Your task to perform on an android device: toggle notifications settings in the gmail app Image 0: 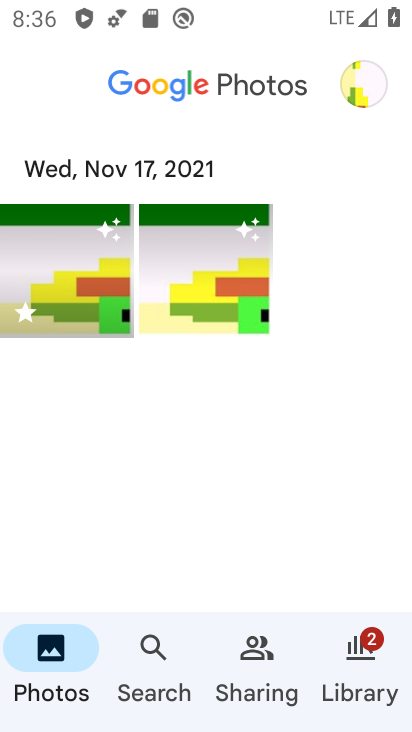
Step 0: press home button
Your task to perform on an android device: toggle notifications settings in the gmail app Image 1: 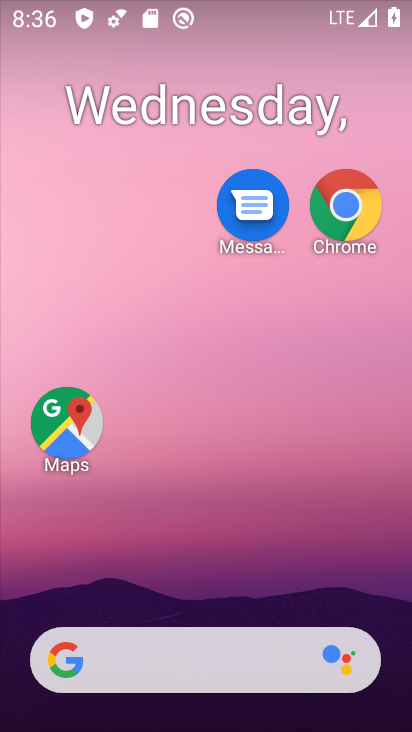
Step 1: drag from (169, 589) to (241, 132)
Your task to perform on an android device: toggle notifications settings in the gmail app Image 2: 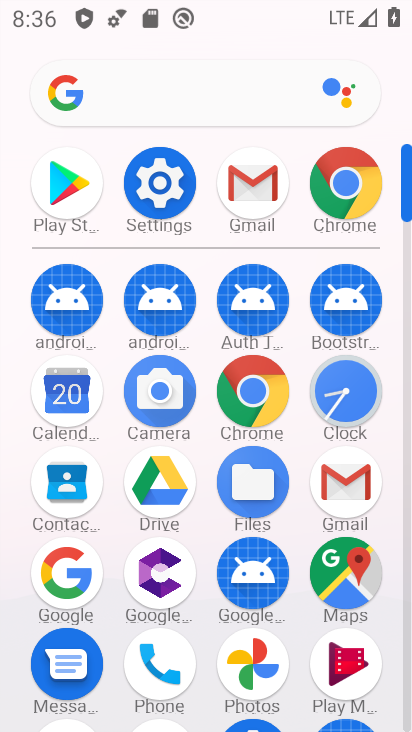
Step 2: click (347, 466)
Your task to perform on an android device: toggle notifications settings in the gmail app Image 3: 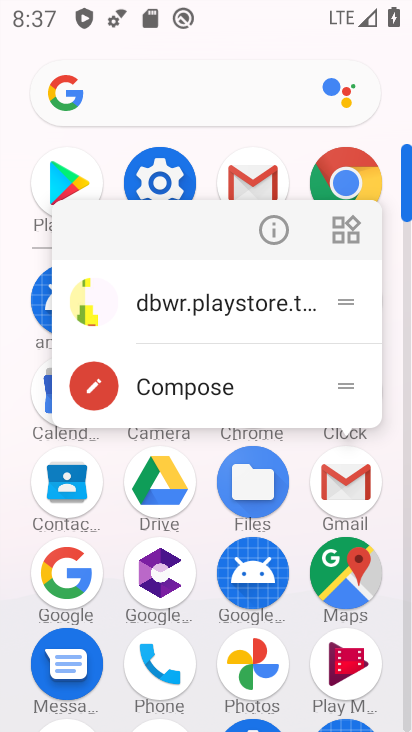
Step 3: click (267, 239)
Your task to perform on an android device: toggle notifications settings in the gmail app Image 4: 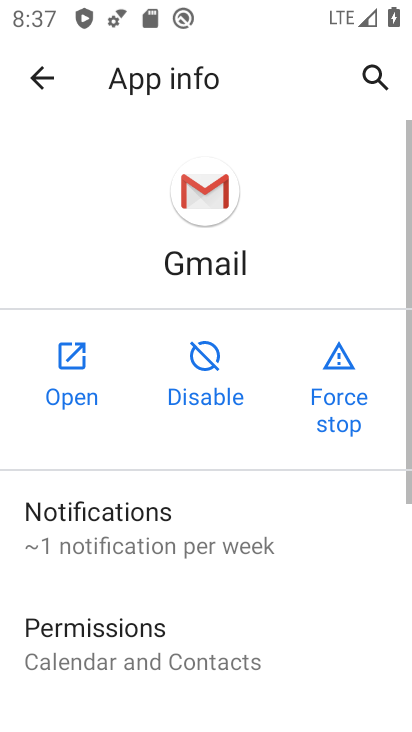
Step 4: click (72, 350)
Your task to perform on an android device: toggle notifications settings in the gmail app Image 5: 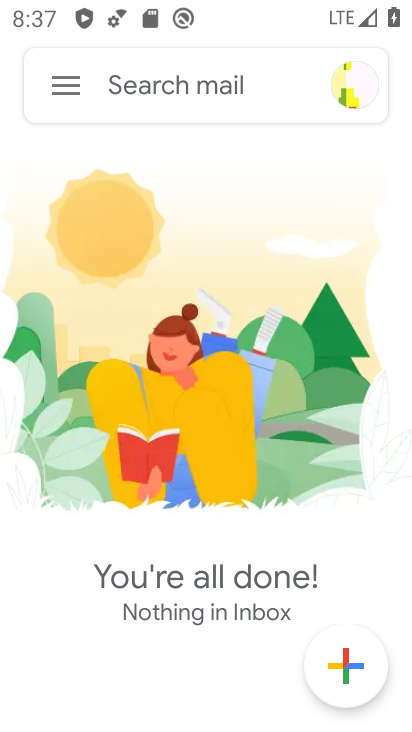
Step 5: click (65, 79)
Your task to perform on an android device: toggle notifications settings in the gmail app Image 6: 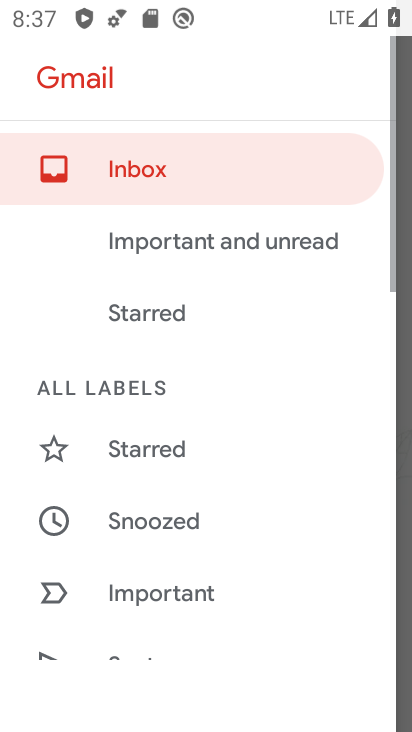
Step 6: drag from (222, 606) to (334, 82)
Your task to perform on an android device: toggle notifications settings in the gmail app Image 7: 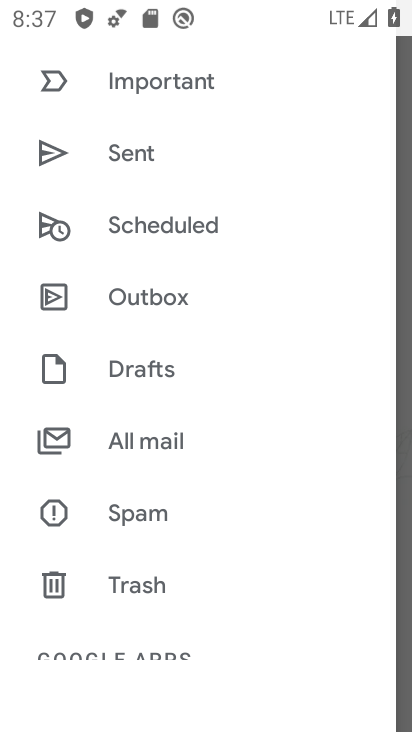
Step 7: drag from (170, 521) to (301, 18)
Your task to perform on an android device: toggle notifications settings in the gmail app Image 8: 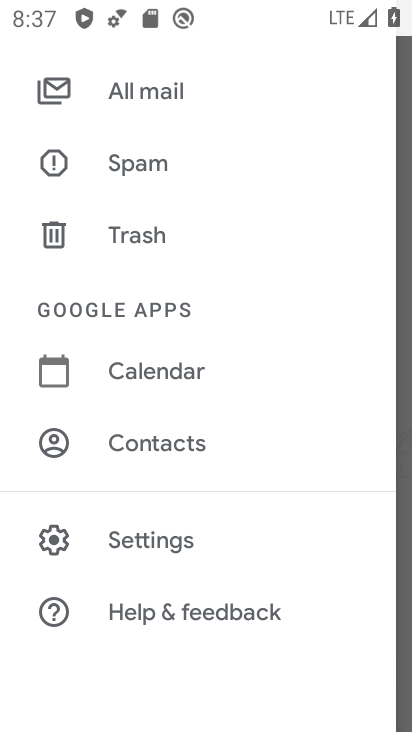
Step 8: click (168, 554)
Your task to perform on an android device: toggle notifications settings in the gmail app Image 9: 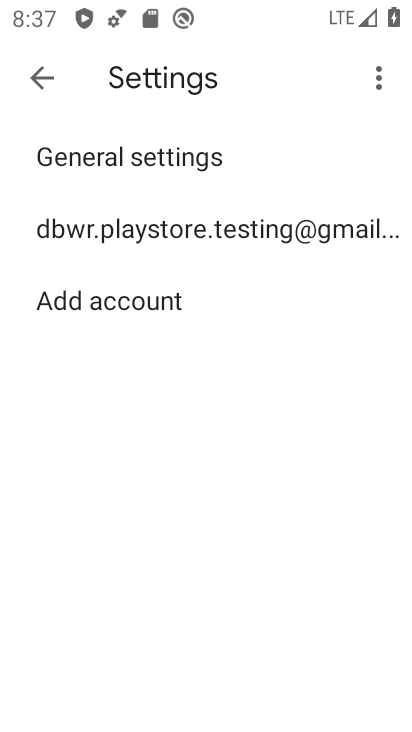
Step 9: click (173, 227)
Your task to perform on an android device: toggle notifications settings in the gmail app Image 10: 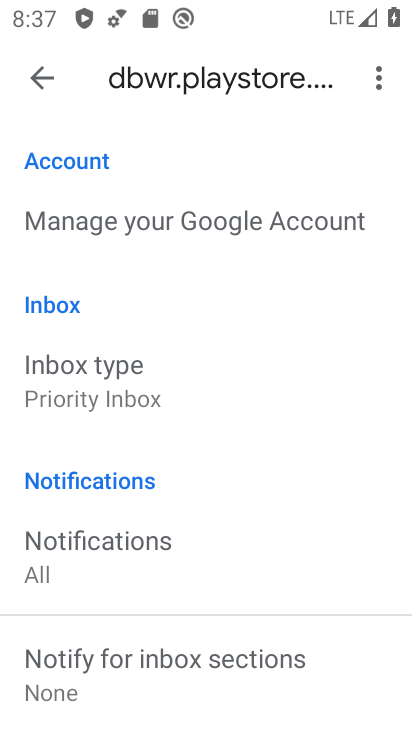
Step 10: drag from (171, 645) to (257, 280)
Your task to perform on an android device: toggle notifications settings in the gmail app Image 11: 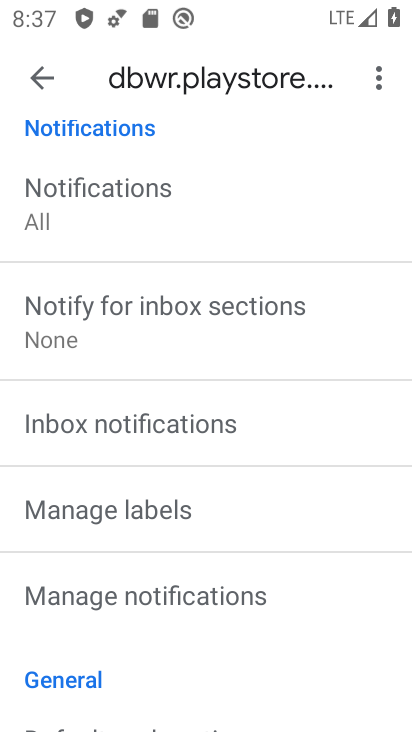
Step 11: click (122, 592)
Your task to perform on an android device: toggle notifications settings in the gmail app Image 12: 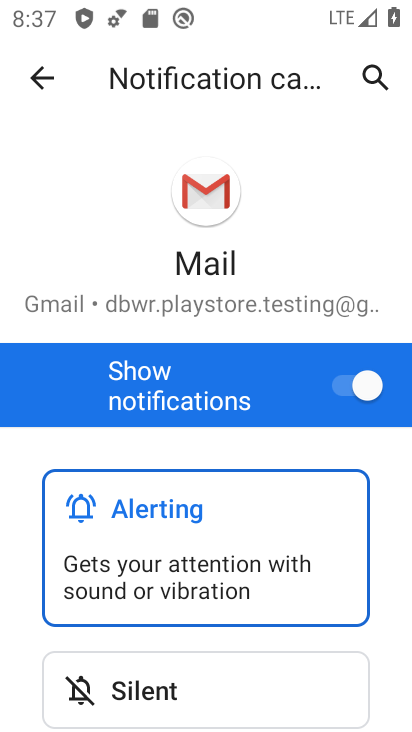
Step 12: drag from (262, 634) to (403, 57)
Your task to perform on an android device: toggle notifications settings in the gmail app Image 13: 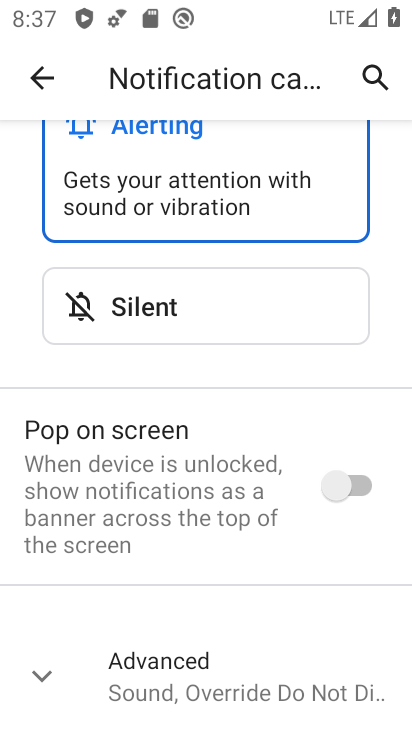
Step 13: drag from (209, 696) to (389, 143)
Your task to perform on an android device: toggle notifications settings in the gmail app Image 14: 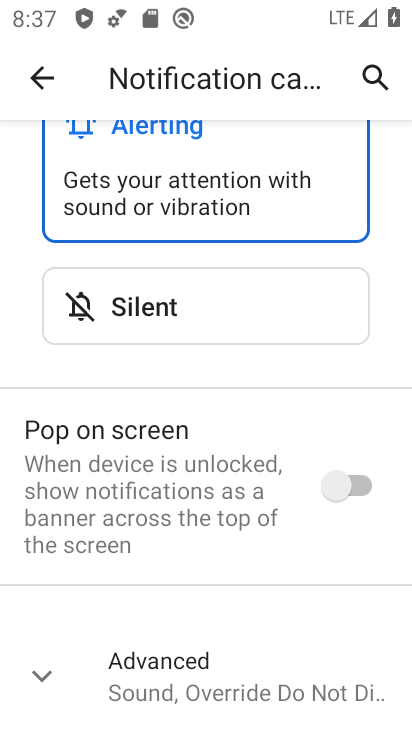
Step 14: drag from (192, 604) to (254, 382)
Your task to perform on an android device: toggle notifications settings in the gmail app Image 15: 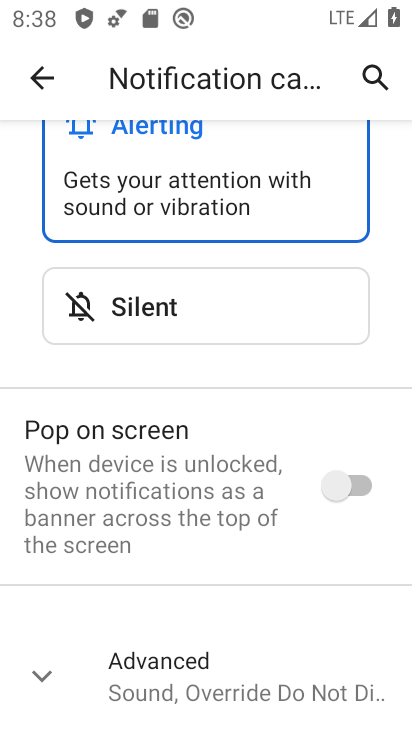
Step 15: click (160, 679)
Your task to perform on an android device: toggle notifications settings in the gmail app Image 16: 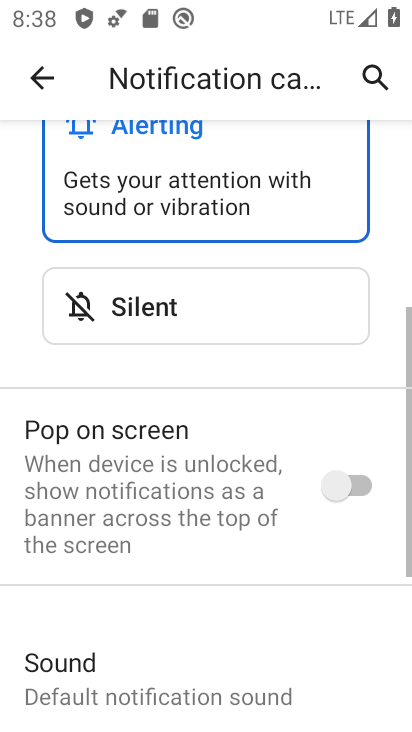
Step 16: drag from (179, 634) to (349, 4)
Your task to perform on an android device: toggle notifications settings in the gmail app Image 17: 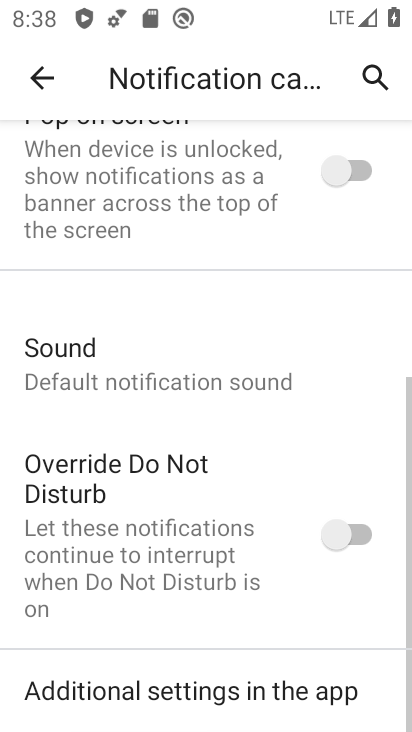
Step 17: drag from (188, 653) to (293, 317)
Your task to perform on an android device: toggle notifications settings in the gmail app Image 18: 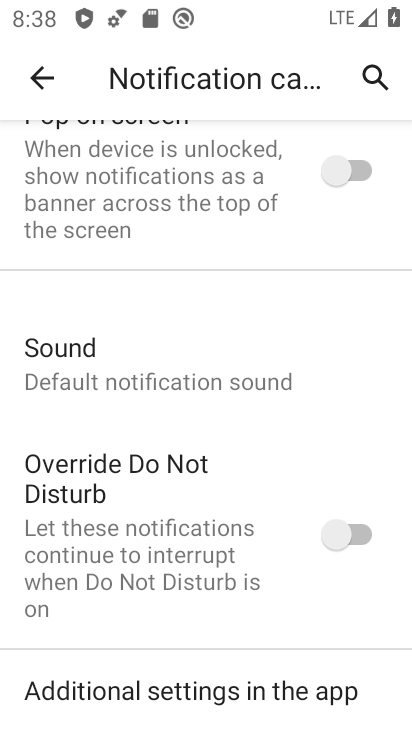
Step 18: drag from (152, 626) to (270, 219)
Your task to perform on an android device: toggle notifications settings in the gmail app Image 19: 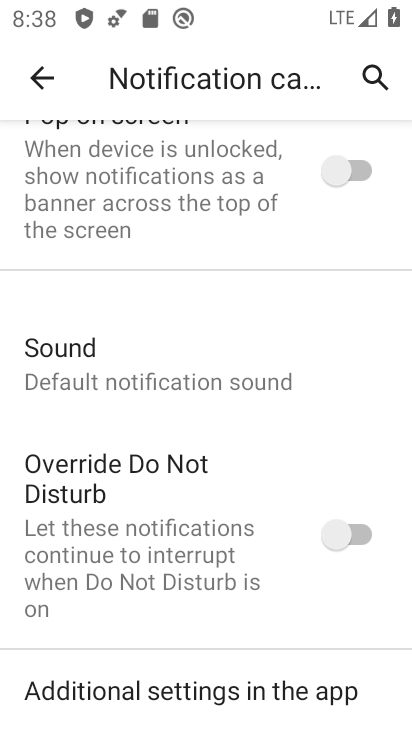
Step 19: drag from (216, 599) to (303, 324)
Your task to perform on an android device: toggle notifications settings in the gmail app Image 20: 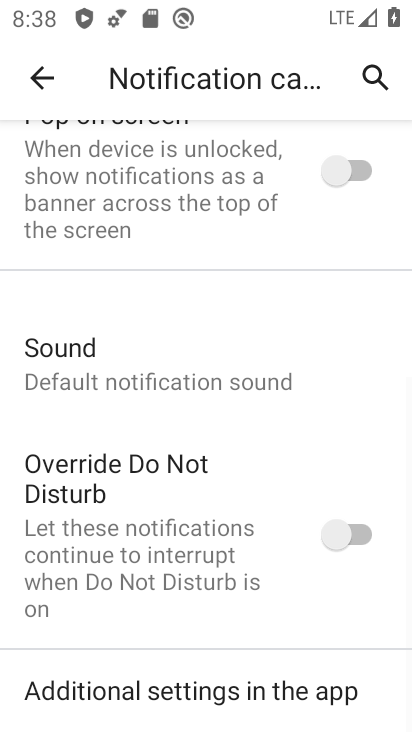
Step 20: drag from (226, 206) to (188, 731)
Your task to perform on an android device: toggle notifications settings in the gmail app Image 21: 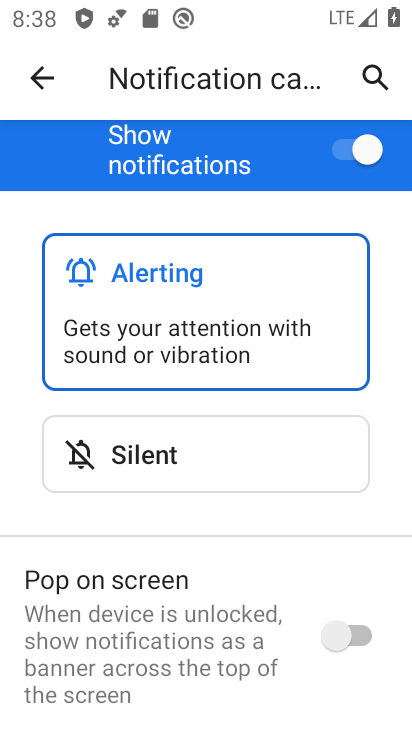
Step 21: drag from (254, 270) to (260, 731)
Your task to perform on an android device: toggle notifications settings in the gmail app Image 22: 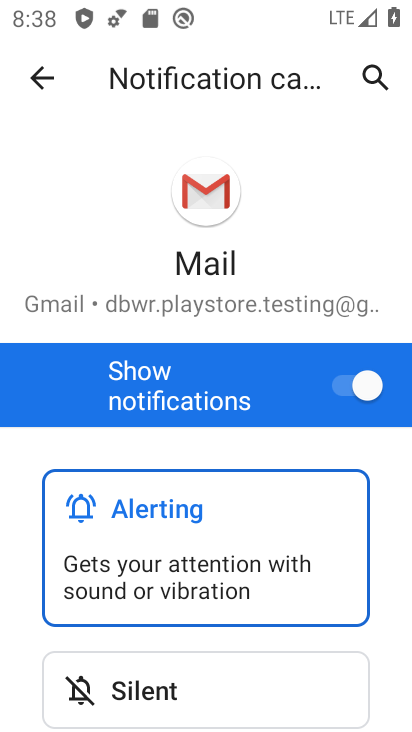
Step 22: click (343, 377)
Your task to perform on an android device: toggle notifications settings in the gmail app Image 23: 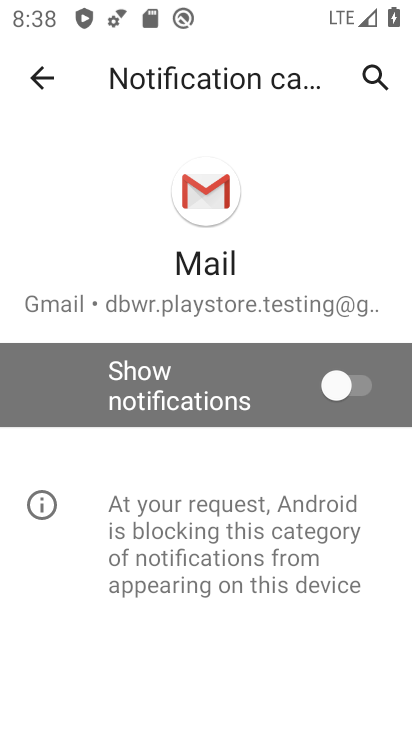
Step 23: task complete